Your task to perform on an android device: Open Wikipedia Image 0: 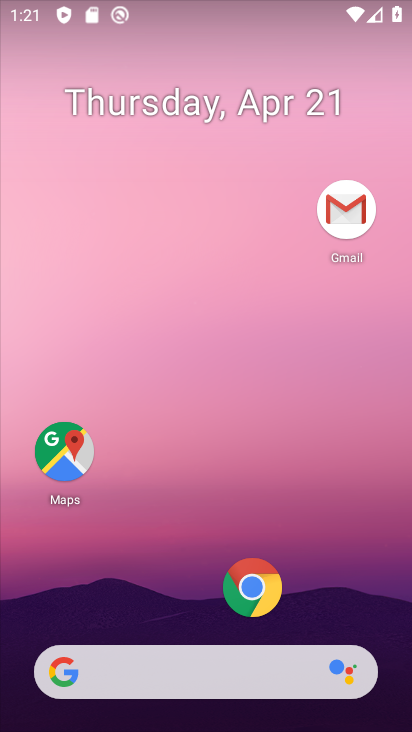
Step 0: click (260, 585)
Your task to perform on an android device: Open Wikipedia Image 1: 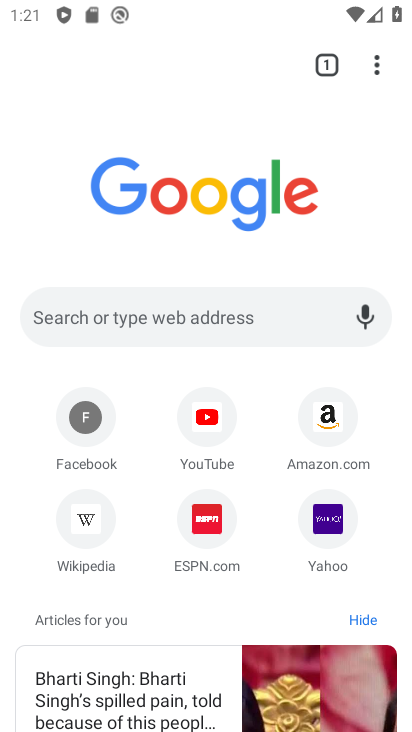
Step 1: click (72, 512)
Your task to perform on an android device: Open Wikipedia Image 2: 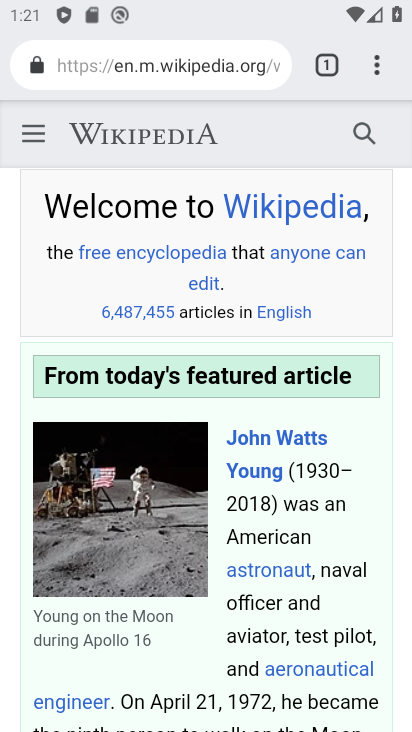
Step 2: task complete